Your task to perform on an android device: change timer sound Image 0: 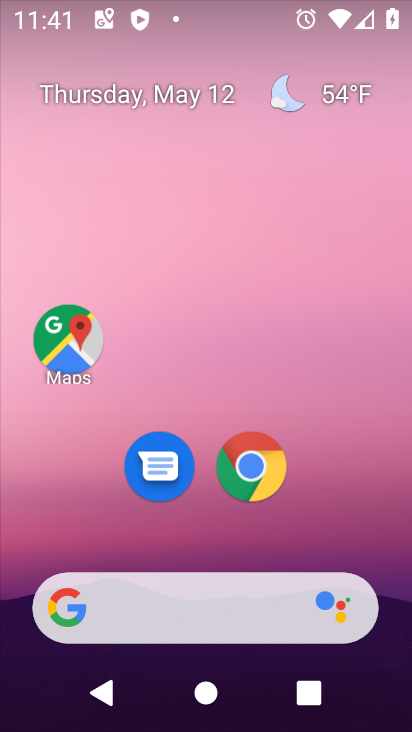
Step 0: drag from (333, 512) to (343, 152)
Your task to perform on an android device: change timer sound Image 1: 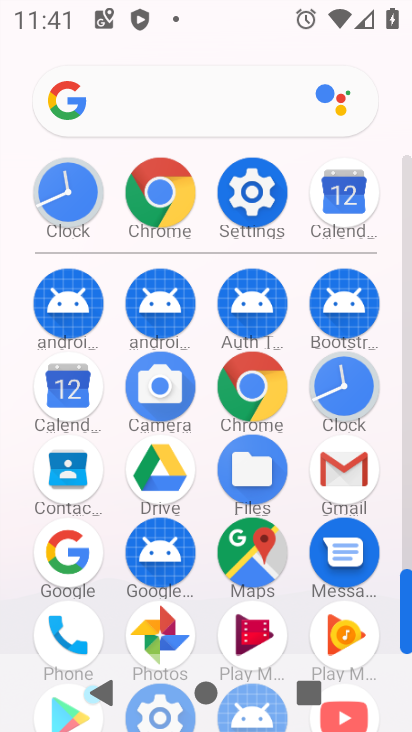
Step 1: click (328, 395)
Your task to perform on an android device: change timer sound Image 2: 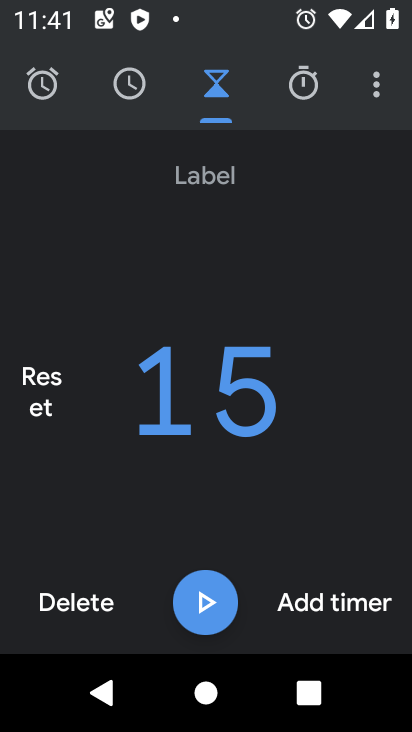
Step 2: click (375, 110)
Your task to perform on an android device: change timer sound Image 3: 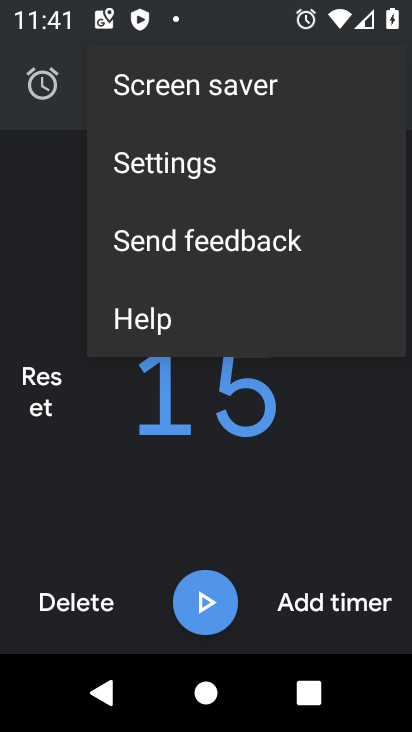
Step 3: click (219, 176)
Your task to perform on an android device: change timer sound Image 4: 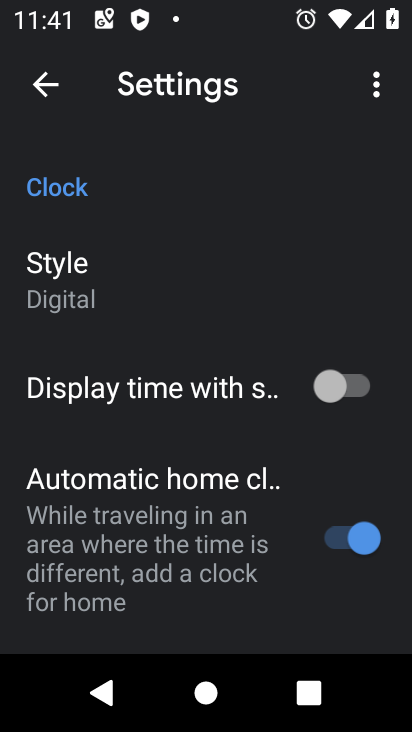
Step 4: drag from (225, 597) to (286, 241)
Your task to perform on an android device: change timer sound Image 5: 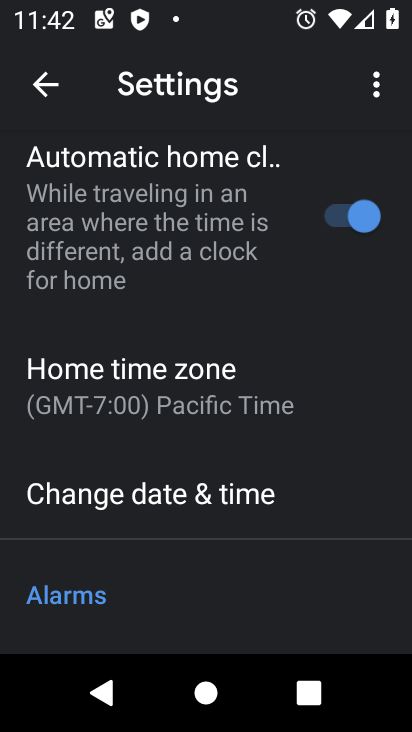
Step 5: drag from (222, 589) to (239, 282)
Your task to perform on an android device: change timer sound Image 6: 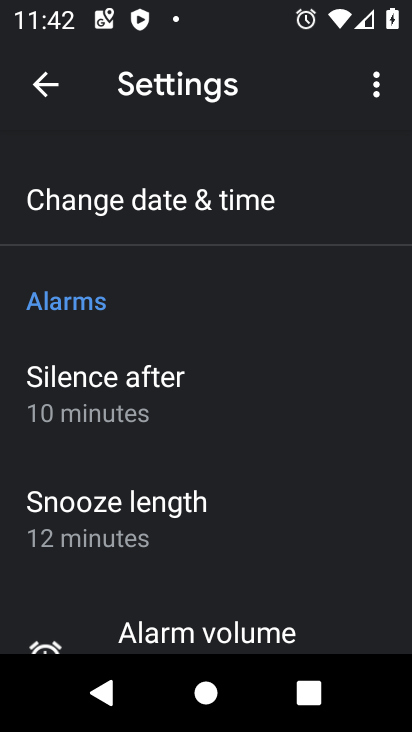
Step 6: drag from (232, 501) to (262, 187)
Your task to perform on an android device: change timer sound Image 7: 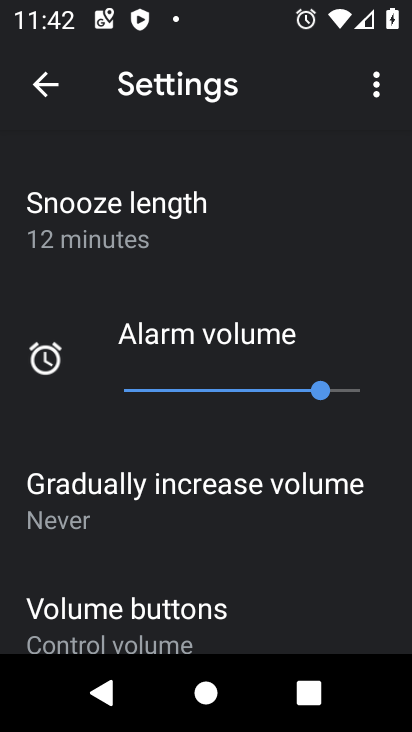
Step 7: drag from (247, 526) to (270, 197)
Your task to perform on an android device: change timer sound Image 8: 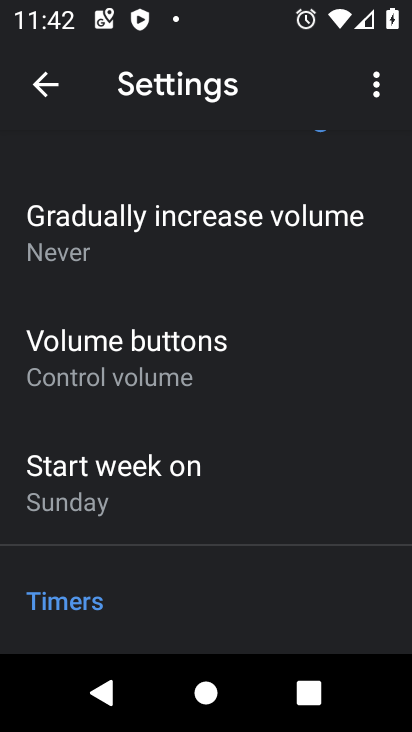
Step 8: drag from (219, 547) to (254, 227)
Your task to perform on an android device: change timer sound Image 9: 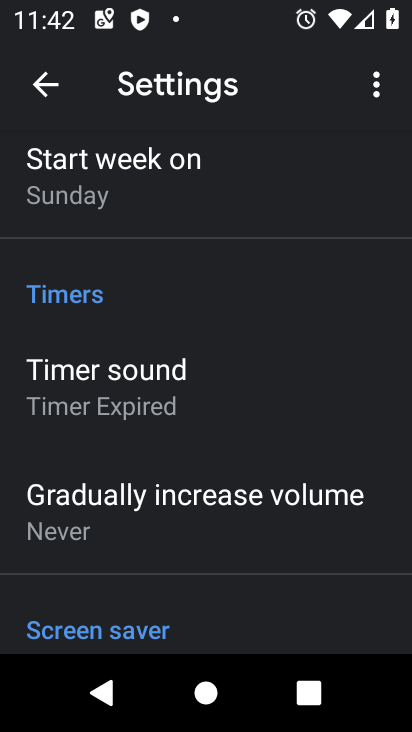
Step 9: click (184, 368)
Your task to perform on an android device: change timer sound Image 10: 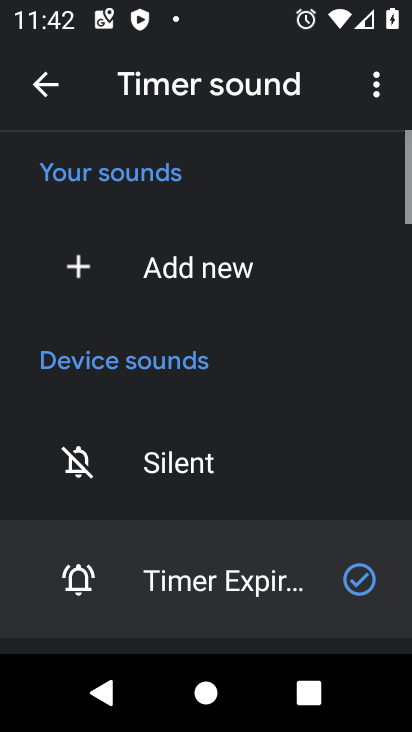
Step 10: drag from (169, 583) to (241, 245)
Your task to perform on an android device: change timer sound Image 11: 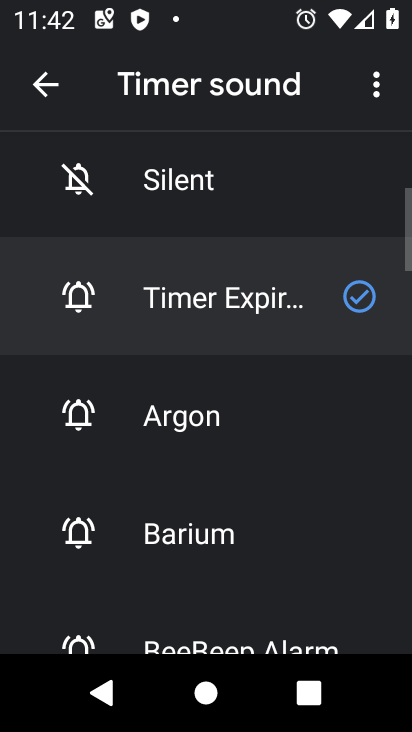
Step 11: click (176, 461)
Your task to perform on an android device: change timer sound Image 12: 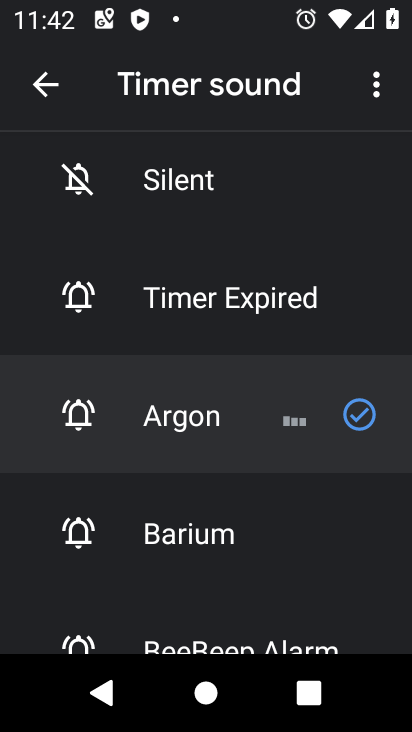
Step 12: task complete